Your task to perform on an android device: open sync settings in chrome Image 0: 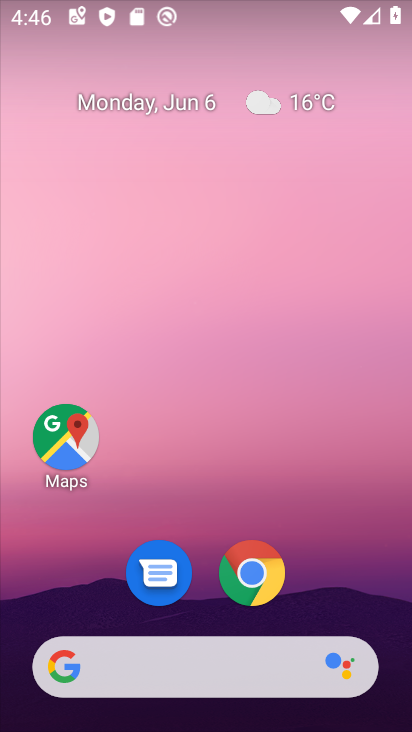
Step 0: click (250, 575)
Your task to perform on an android device: open sync settings in chrome Image 1: 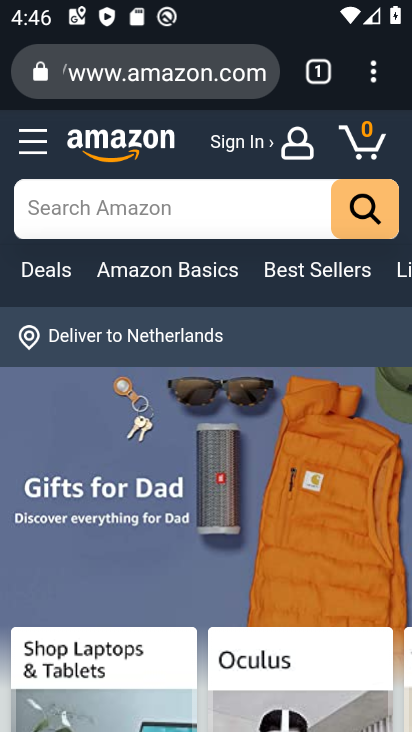
Step 1: click (375, 74)
Your task to perform on an android device: open sync settings in chrome Image 2: 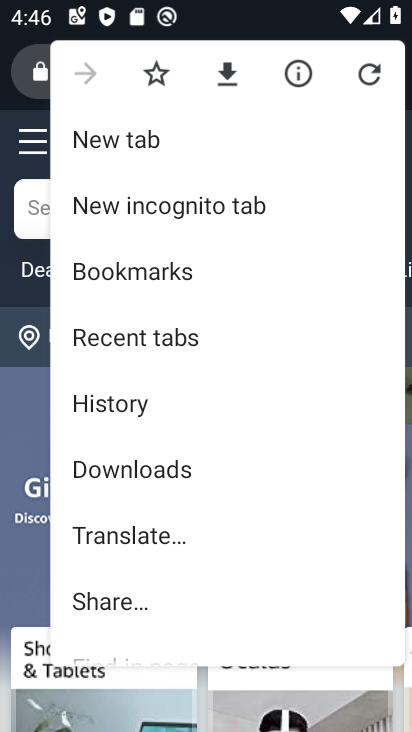
Step 2: drag from (177, 550) to (202, 300)
Your task to perform on an android device: open sync settings in chrome Image 3: 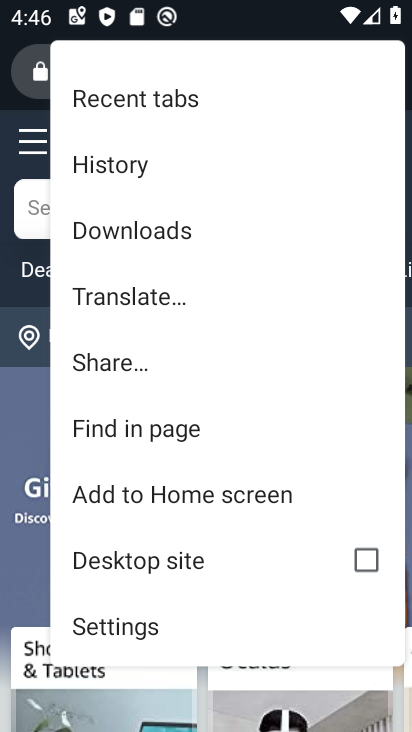
Step 3: click (148, 625)
Your task to perform on an android device: open sync settings in chrome Image 4: 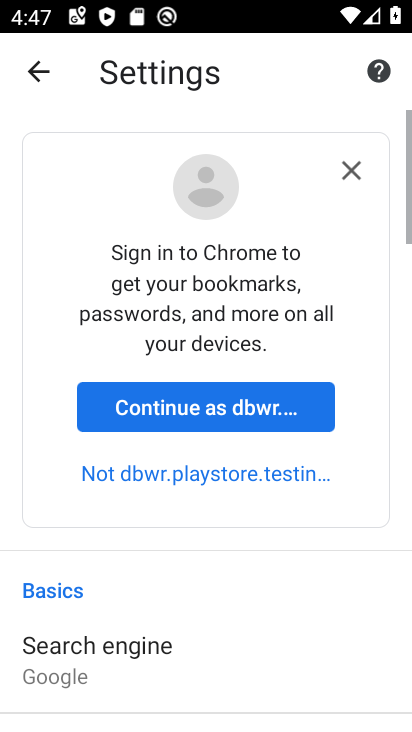
Step 4: drag from (210, 571) to (249, 171)
Your task to perform on an android device: open sync settings in chrome Image 5: 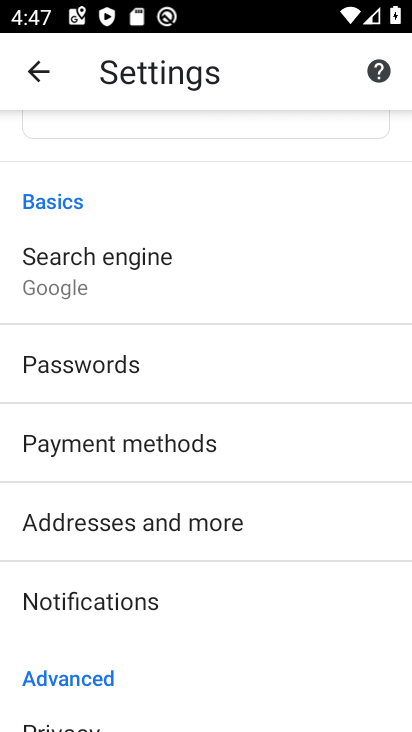
Step 5: drag from (209, 604) to (333, 297)
Your task to perform on an android device: open sync settings in chrome Image 6: 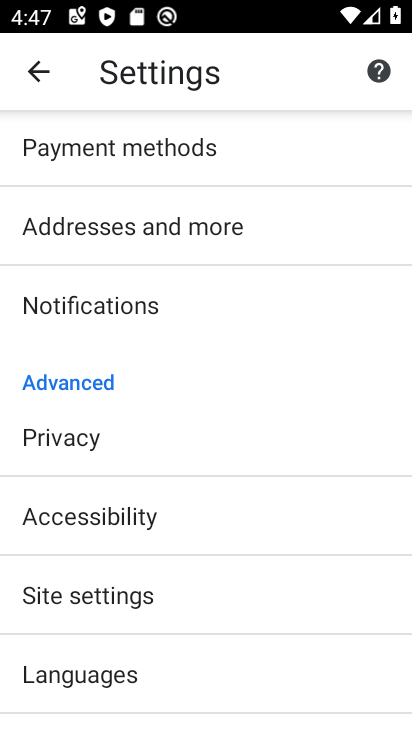
Step 6: drag from (224, 607) to (274, 326)
Your task to perform on an android device: open sync settings in chrome Image 7: 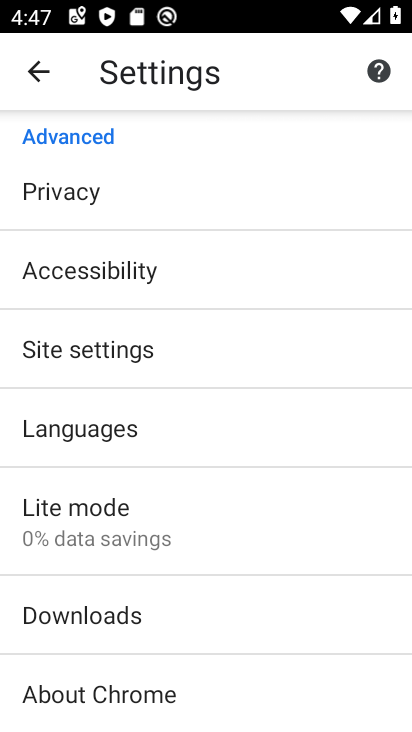
Step 7: click (135, 338)
Your task to perform on an android device: open sync settings in chrome Image 8: 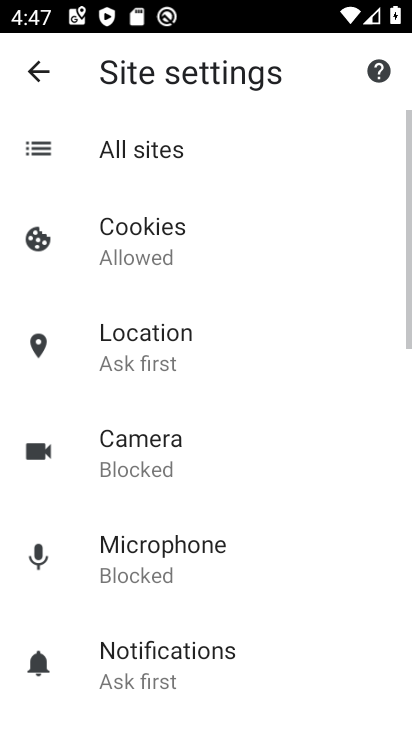
Step 8: drag from (214, 592) to (261, 416)
Your task to perform on an android device: open sync settings in chrome Image 9: 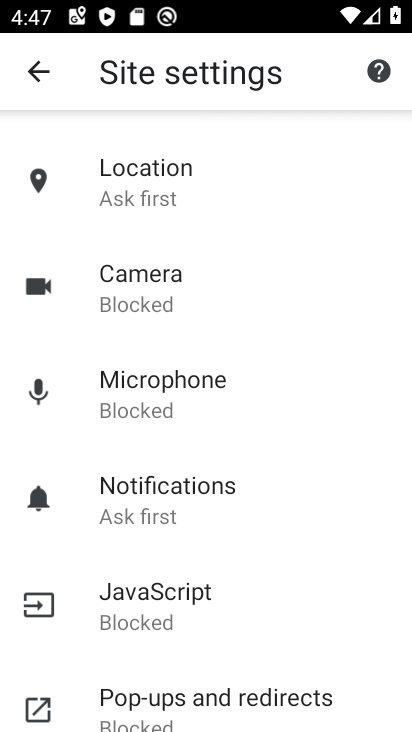
Step 9: drag from (225, 652) to (289, 462)
Your task to perform on an android device: open sync settings in chrome Image 10: 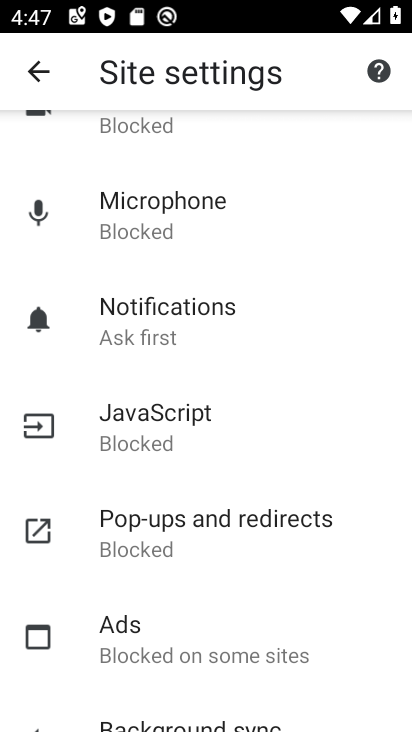
Step 10: drag from (222, 604) to (314, 430)
Your task to perform on an android device: open sync settings in chrome Image 11: 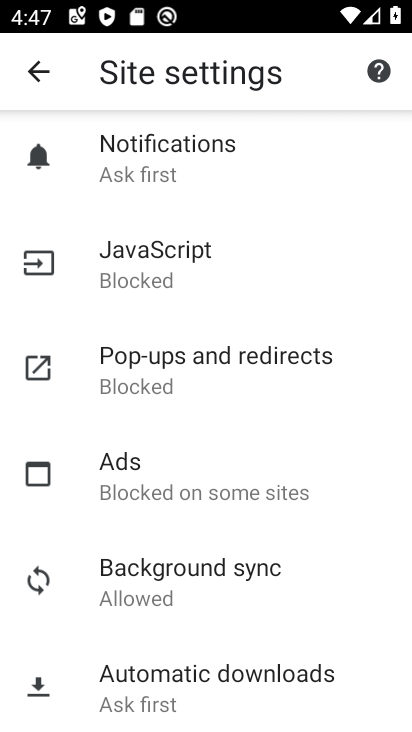
Step 11: click (232, 566)
Your task to perform on an android device: open sync settings in chrome Image 12: 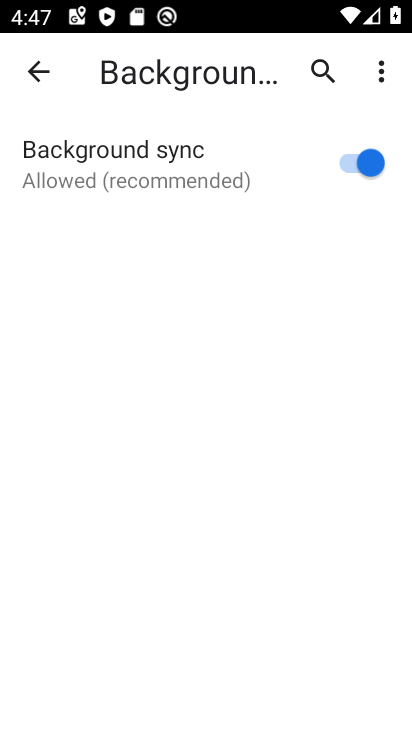
Step 12: task complete